Your task to perform on an android device: View the shopping cart on newegg.com. Search for "usb-c" on newegg.com, select the first entry, and add it to the cart. Image 0: 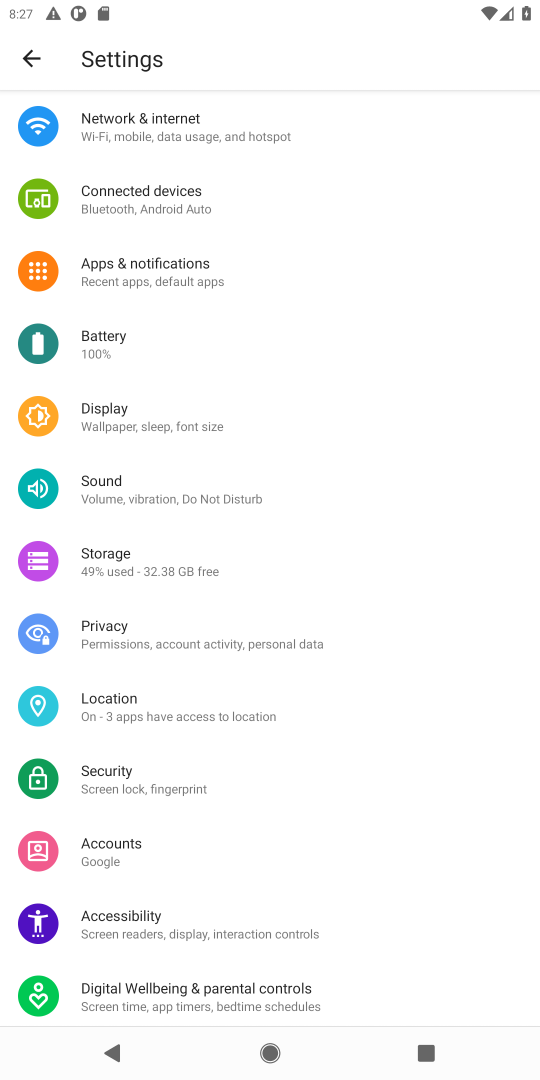
Step 0: press home button
Your task to perform on an android device: View the shopping cart on newegg.com. Search for "usb-c" on newegg.com, select the first entry, and add it to the cart. Image 1: 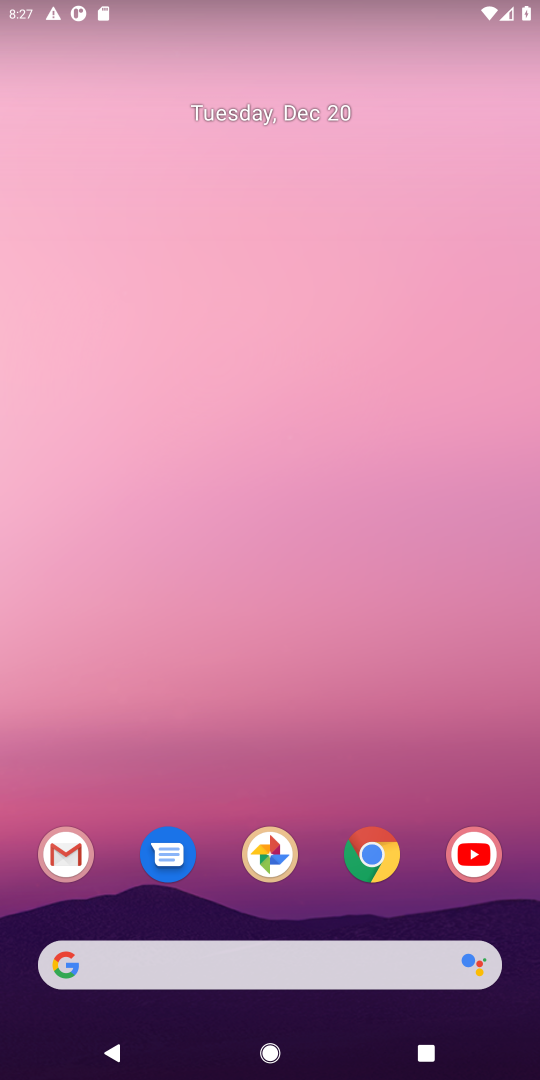
Step 1: click (369, 860)
Your task to perform on an android device: View the shopping cart on newegg.com. Search for "usb-c" on newegg.com, select the first entry, and add it to the cart. Image 2: 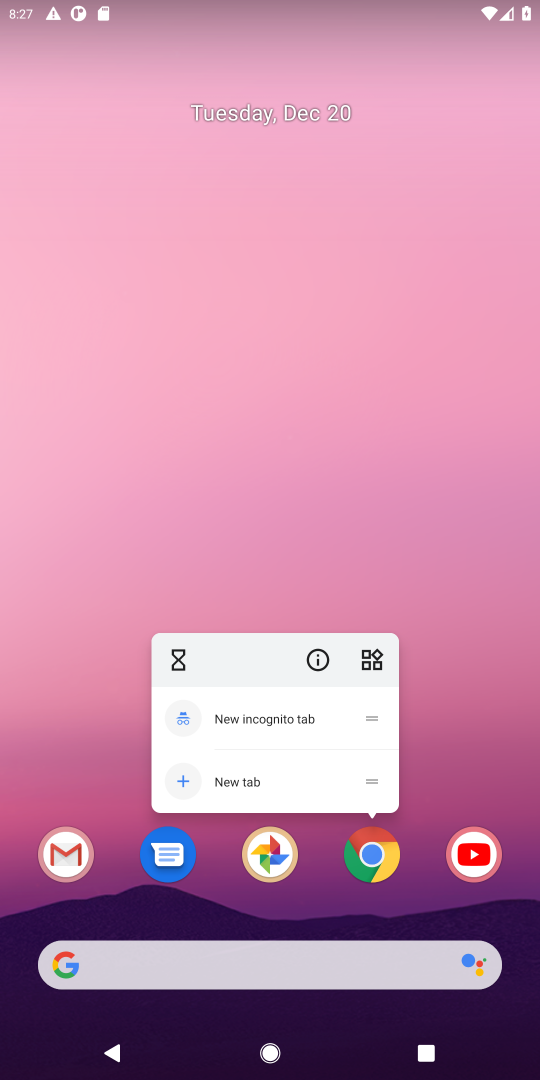
Step 2: click (373, 857)
Your task to perform on an android device: View the shopping cart on newegg.com. Search for "usb-c" on newegg.com, select the first entry, and add it to the cart. Image 3: 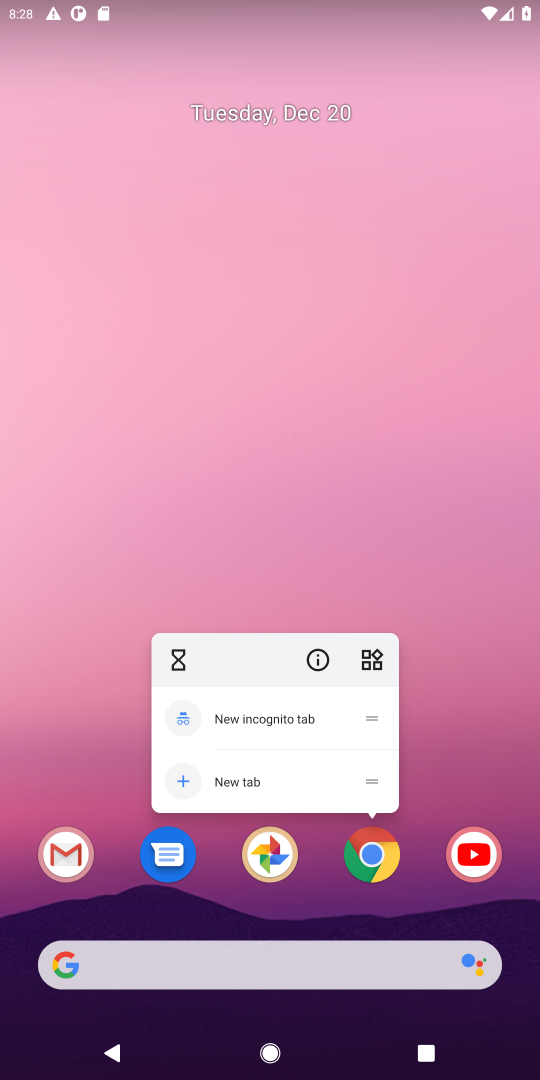
Step 3: click (377, 849)
Your task to perform on an android device: View the shopping cart on newegg.com. Search for "usb-c" on newegg.com, select the first entry, and add it to the cart. Image 4: 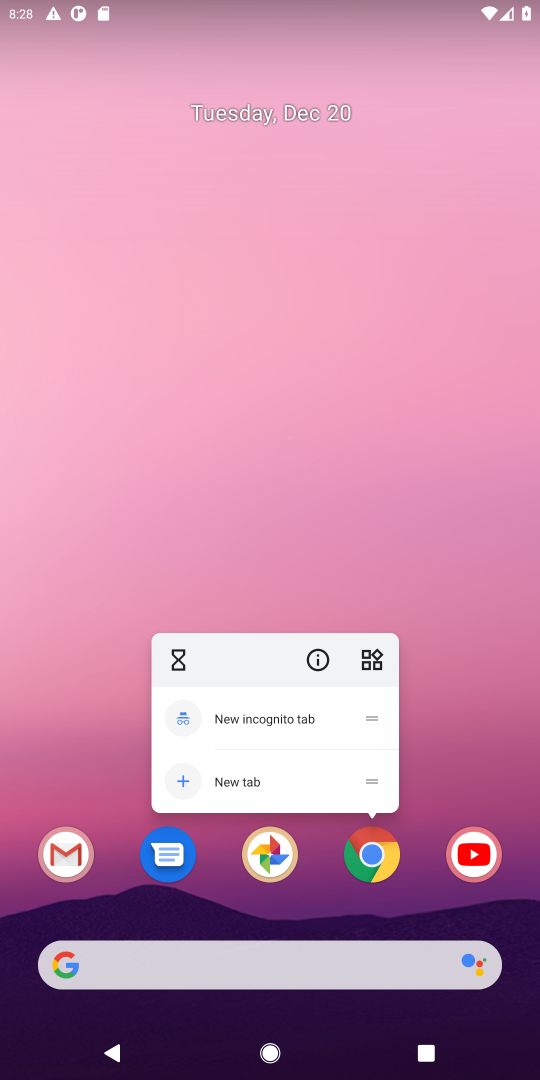
Step 4: click (383, 867)
Your task to perform on an android device: View the shopping cart on newegg.com. Search for "usb-c" on newegg.com, select the first entry, and add it to the cart. Image 5: 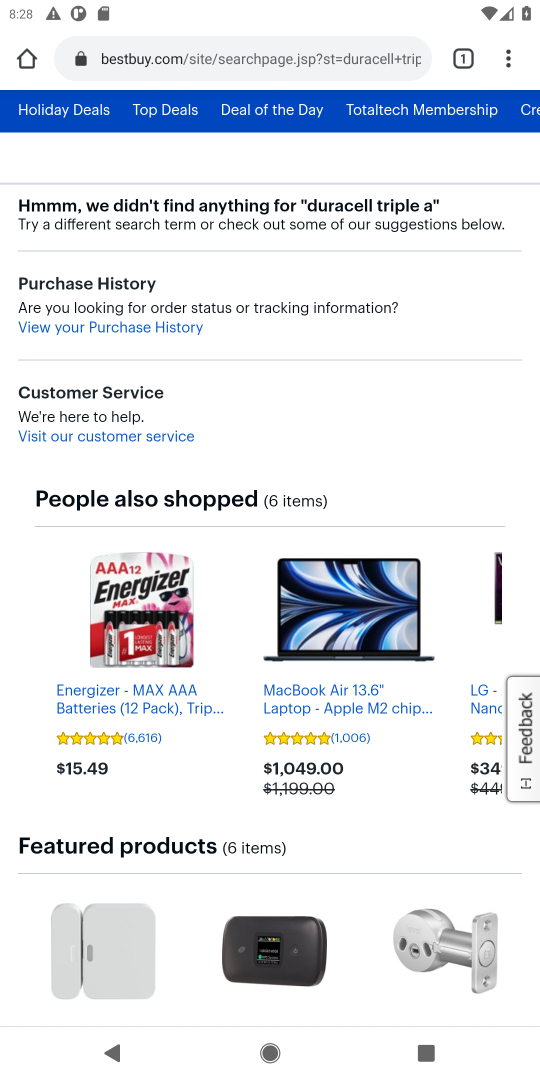
Step 5: click (184, 66)
Your task to perform on an android device: View the shopping cart on newegg.com. Search for "usb-c" on newegg.com, select the first entry, and add it to the cart. Image 6: 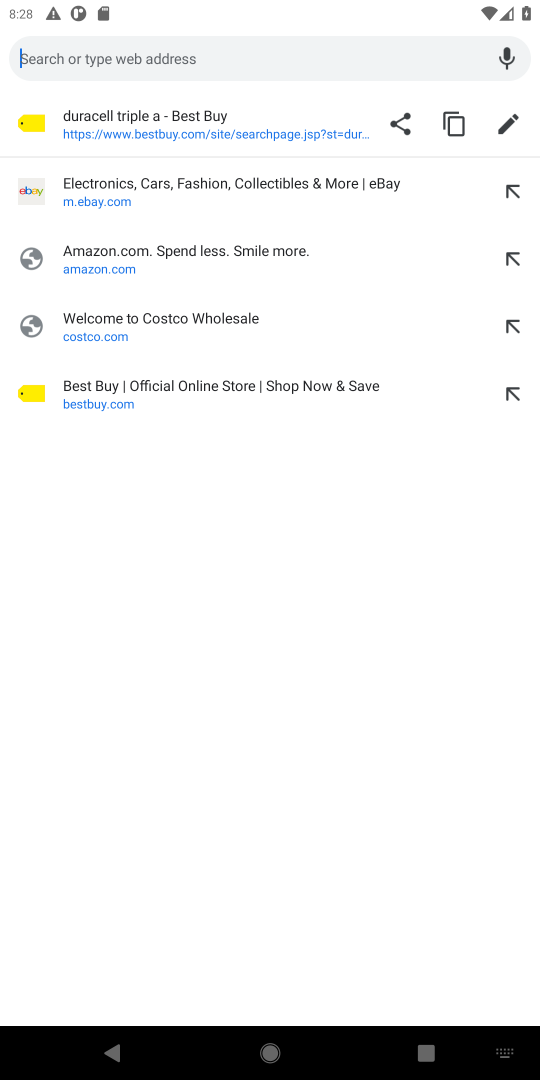
Step 6: type "newegg.com"
Your task to perform on an android device: View the shopping cart on newegg.com. Search for "usb-c" on newegg.com, select the first entry, and add it to the cart. Image 7: 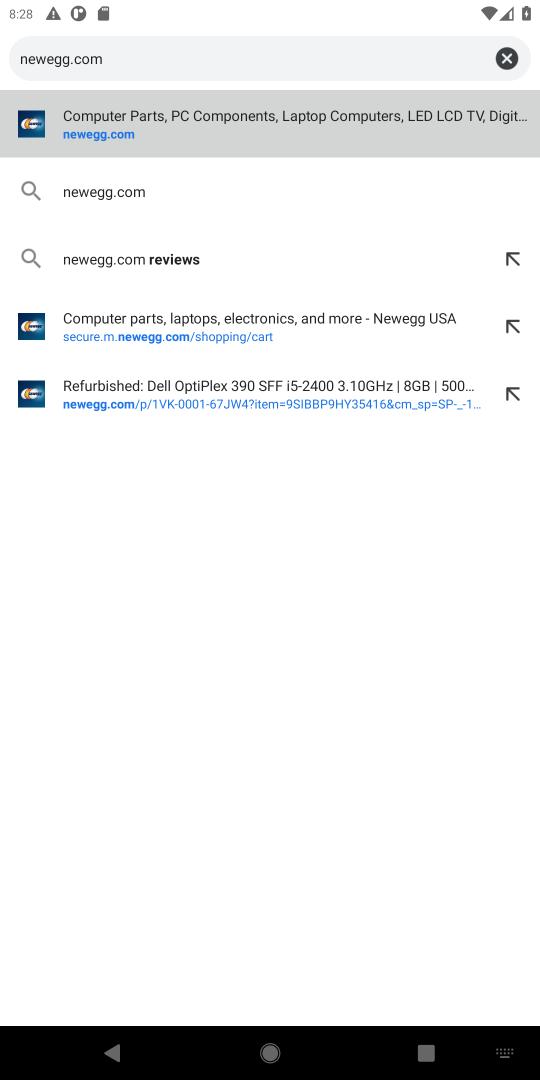
Step 7: click (88, 143)
Your task to perform on an android device: View the shopping cart on newegg.com. Search for "usb-c" on newegg.com, select the first entry, and add it to the cart. Image 8: 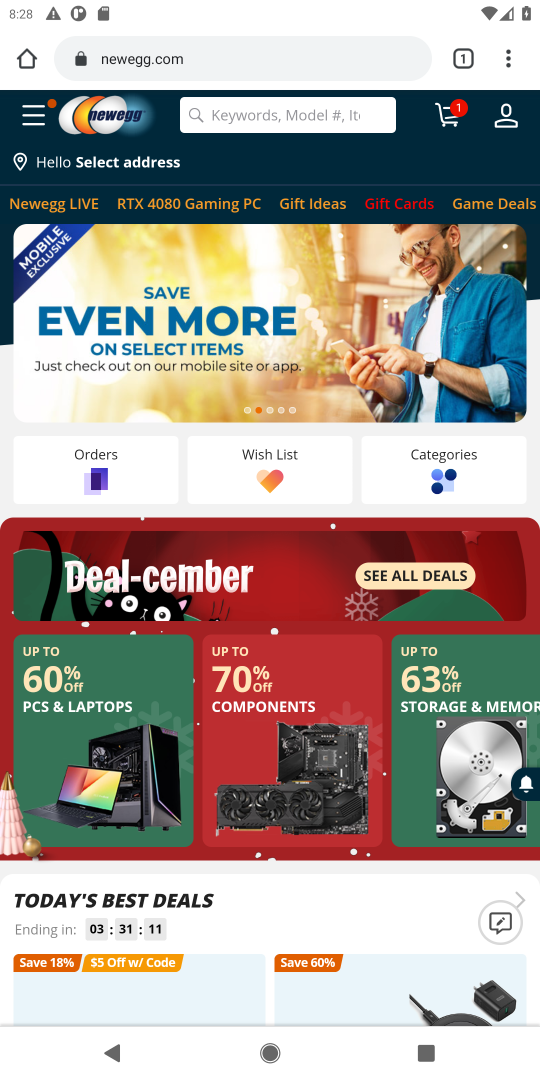
Step 8: click (446, 111)
Your task to perform on an android device: View the shopping cart on newegg.com. Search for "usb-c" on newegg.com, select the first entry, and add it to the cart. Image 9: 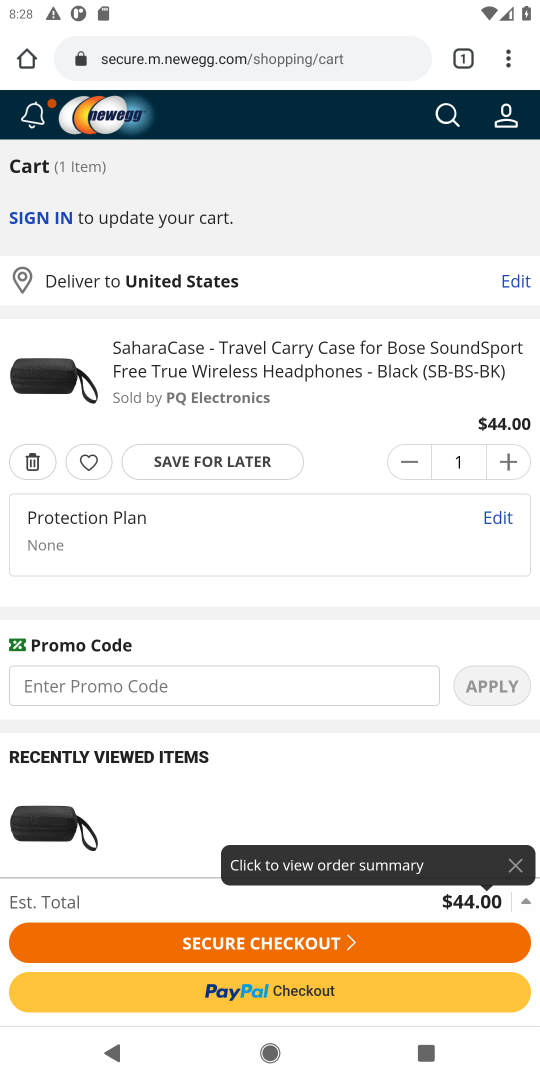
Step 9: click (456, 114)
Your task to perform on an android device: View the shopping cart on newegg.com. Search for "usb-c" on newegg.com, select the first entry, and add it to the cart. Image 10: 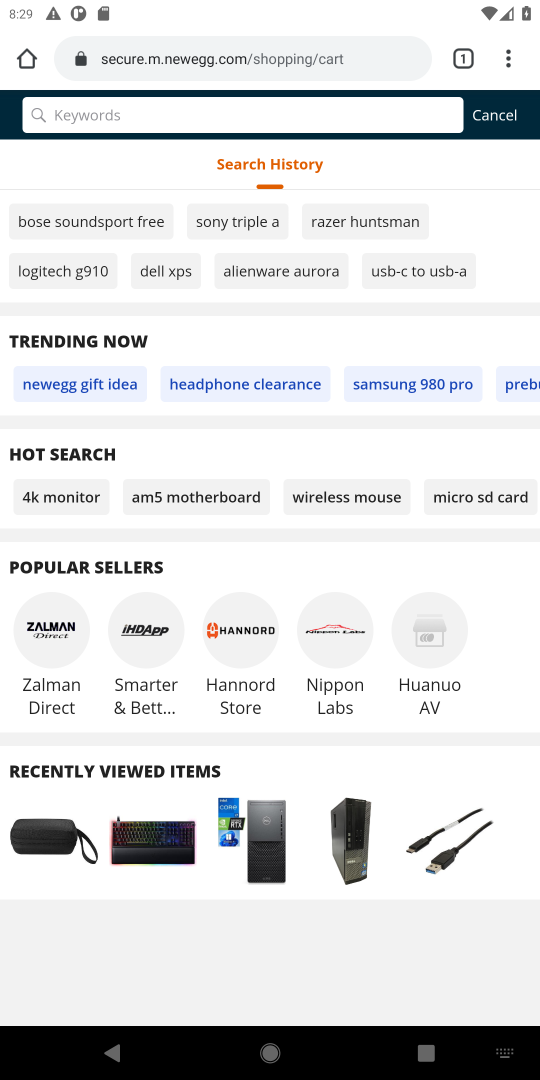
Step 10: type "usb-c"
Your task to perform on an android device: View the shopping cart on newegg.com. Search for "usb-c" on newegg.com, select the first entry, and add it to the cart. Image 11: 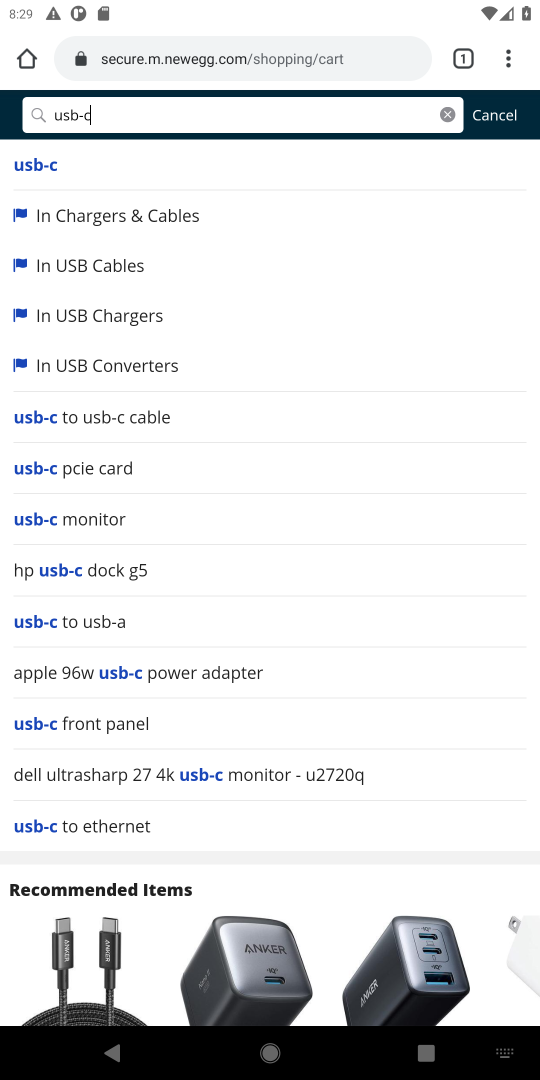
Step 11: click (21, 169)
Your task to perform on an android device: View the shopping cart on newegg.com. Search for "usb-c" on newegg.com, select the first entry, and add it to the cart. Image 12: 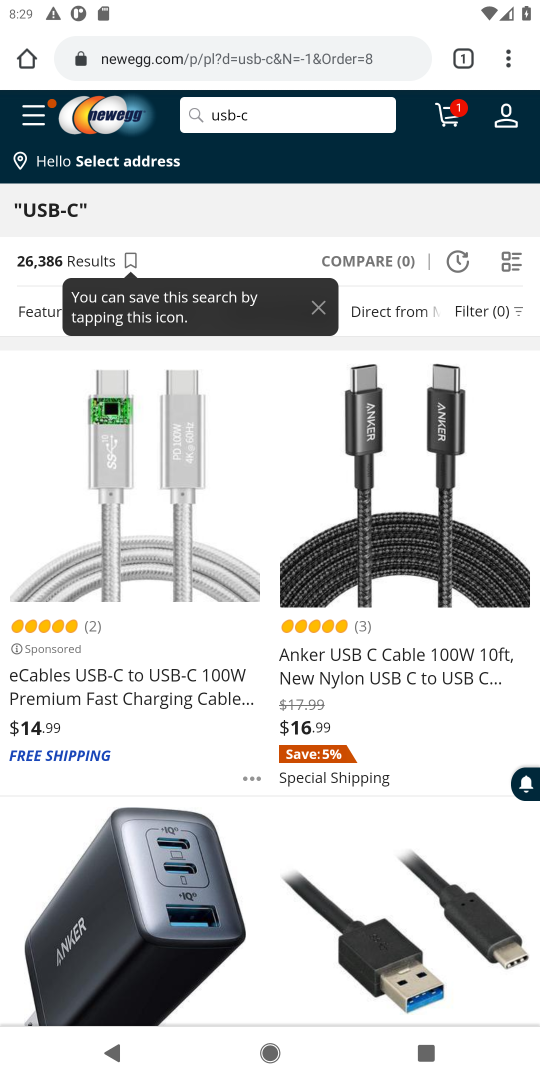
Step 12: click (103, 673)
Your task to perform on an android device: View the shopping cart on newegg.com. Search for "usb-c" on newegg.com, select the first entry, and add it to the cart. Image 13: 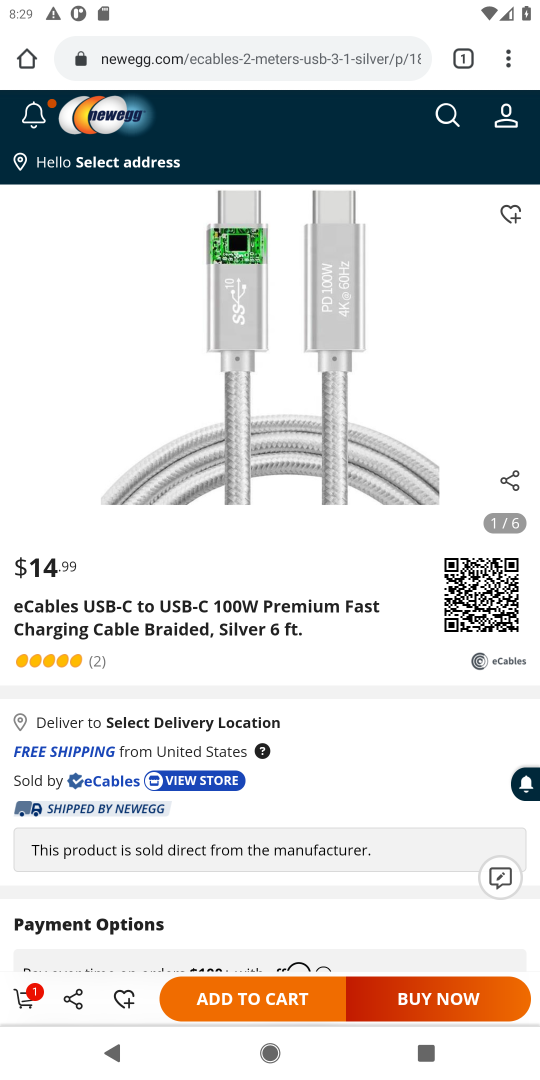
Step 13: click (249, 997)
Your task to perform on an android device: View the shopping cart on newegg.com. Search for "usb-c" on newegg.com, select the first entry, and add it to the cart. Image 14: 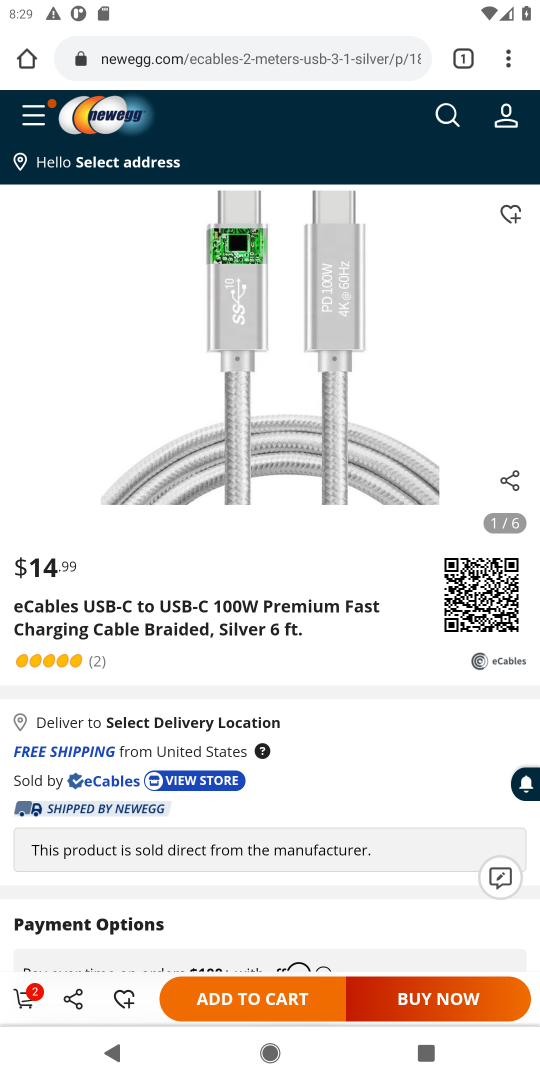
Step 14: click (254, 1003)
Your task to perform on an android device: View the shopping cart on newegg.com. Search for "usb-c" on newegg.com, select the first entry, and add it to the cart. Image 15: 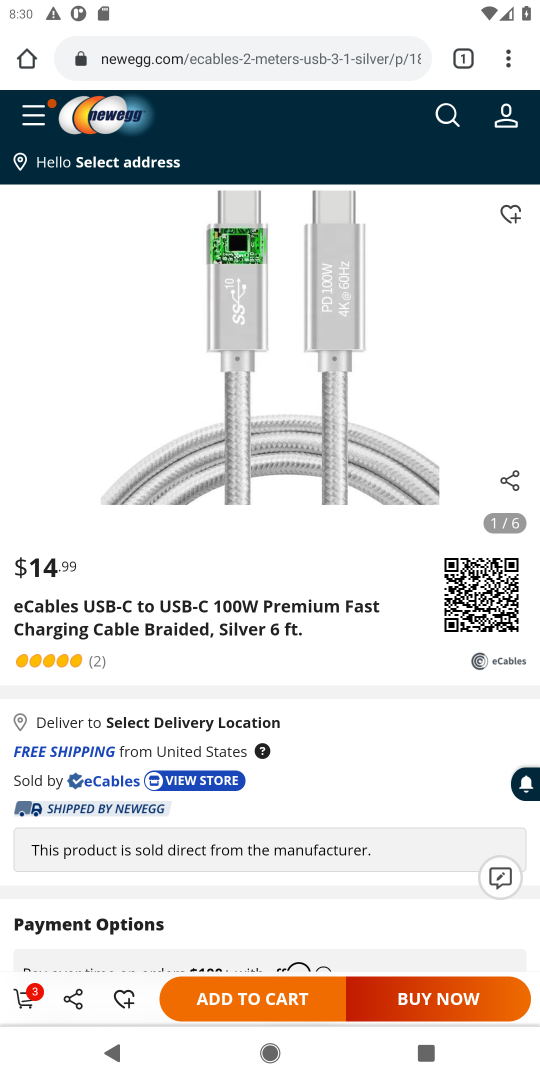
Step 15: task complete